Your task to perform on an android device: turn off wifi Image 0: 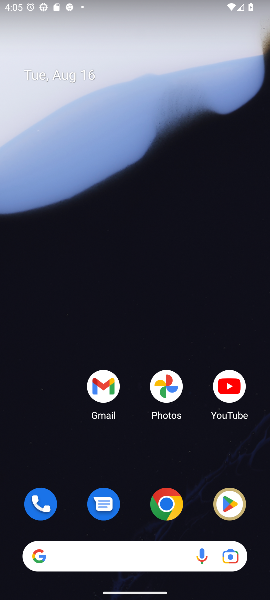
Step 0: drag from (143, 503) to (112, 74)
Your task to perform on an android device: turn off wifi Image 1: 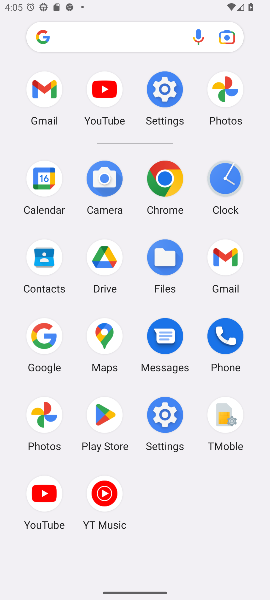
Step 1: click (160, 89)
Your task to perform on an android device: turn off wifi Image 2: 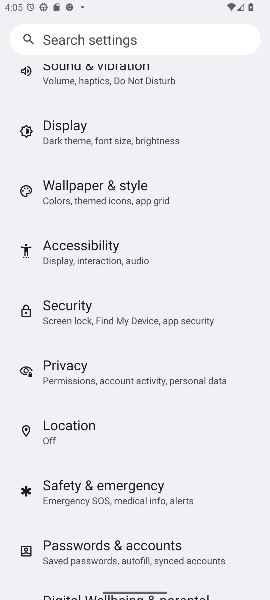
Step 2: drag from (169, 115) to (188, 377)
Your task to perform on an android device: turn off wifi Image 3: 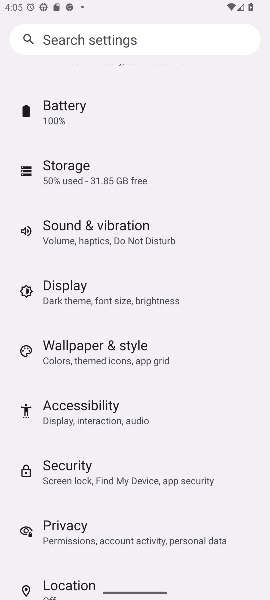
Step 3: drag from (159, 139) to (179, 415)
Your task to perform on an android device: turn off wifi Image 4: 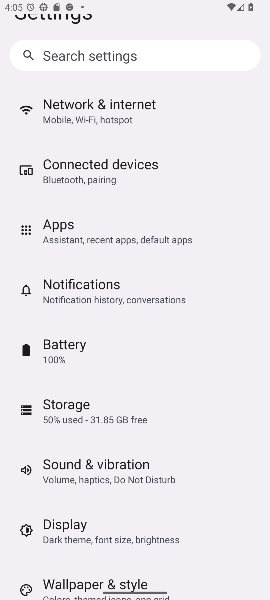
Step 4: click (79, 102)
Your task to perform on an android device: turn off wifi Image 5: 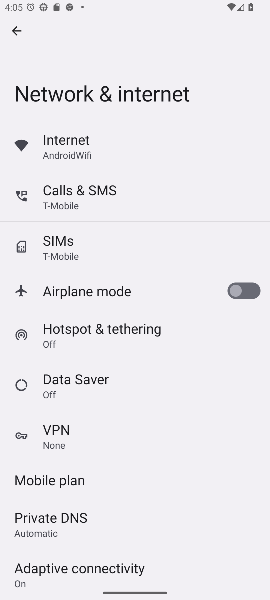
Step 5: click (64, 138)
Your task to perform on an android device: turn off wifi Image 6: 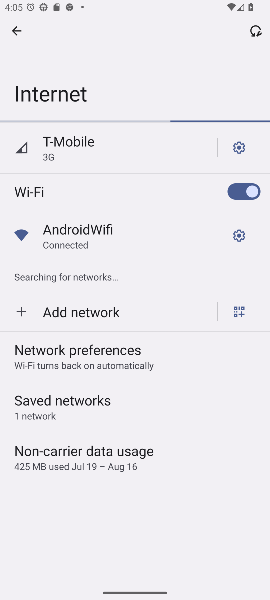
Step 6: click (250, 186)
Your task to perform on an android device: turn off wifi Image 7: 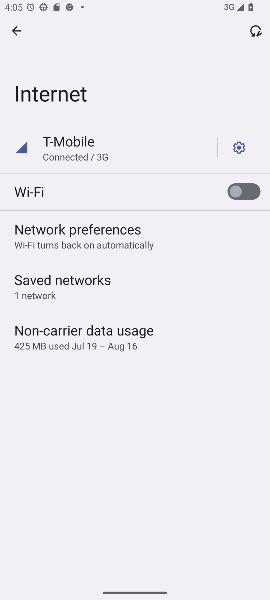
Step 7: task complete